Your task to perform on an android device: Play the latest video from the Huffington Post Image 0: 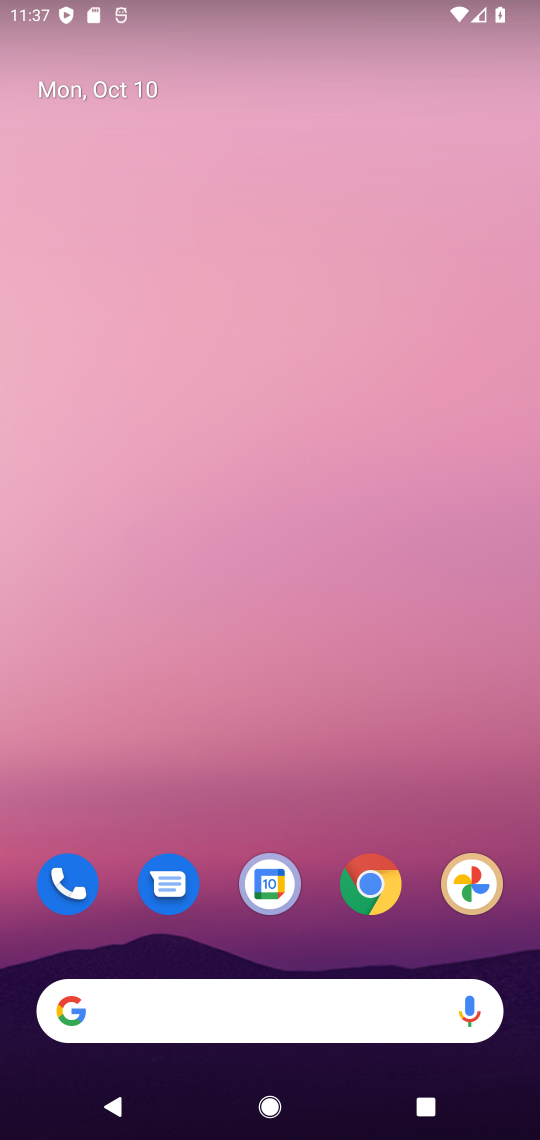
Step 0: click (364, 892)
Your task to perform on an android device: Play the latest video from the Huffington Post Image 1: 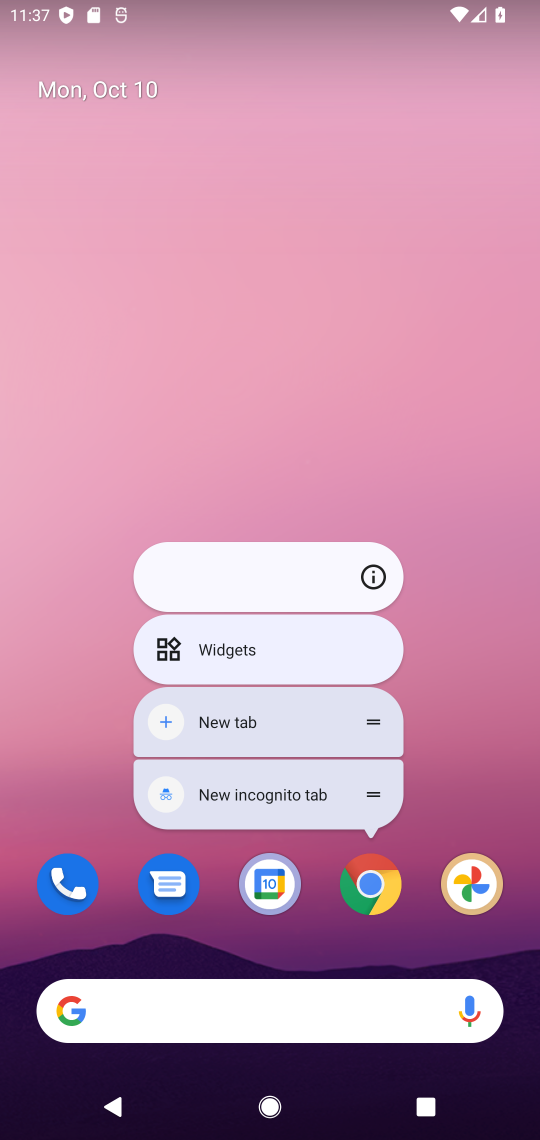
Step 1: click (380, 888)
Your task to perform on an android device: Play the latest video from the Huffington Post Image 2: 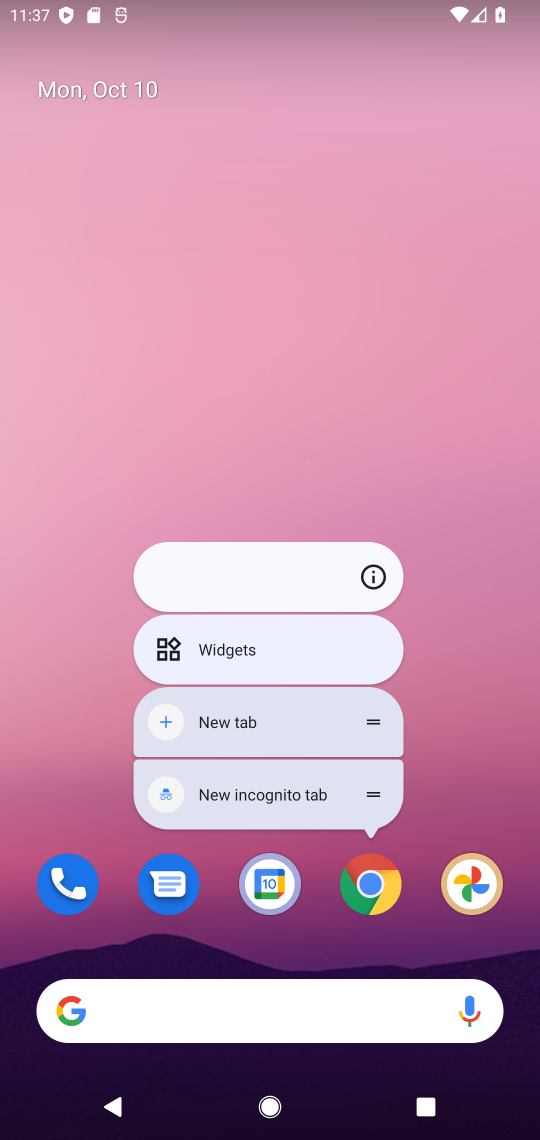
Step 2: click (380, 888)
Your task to perform on an android device: Play the latest video from the Huffington Post Image 3: 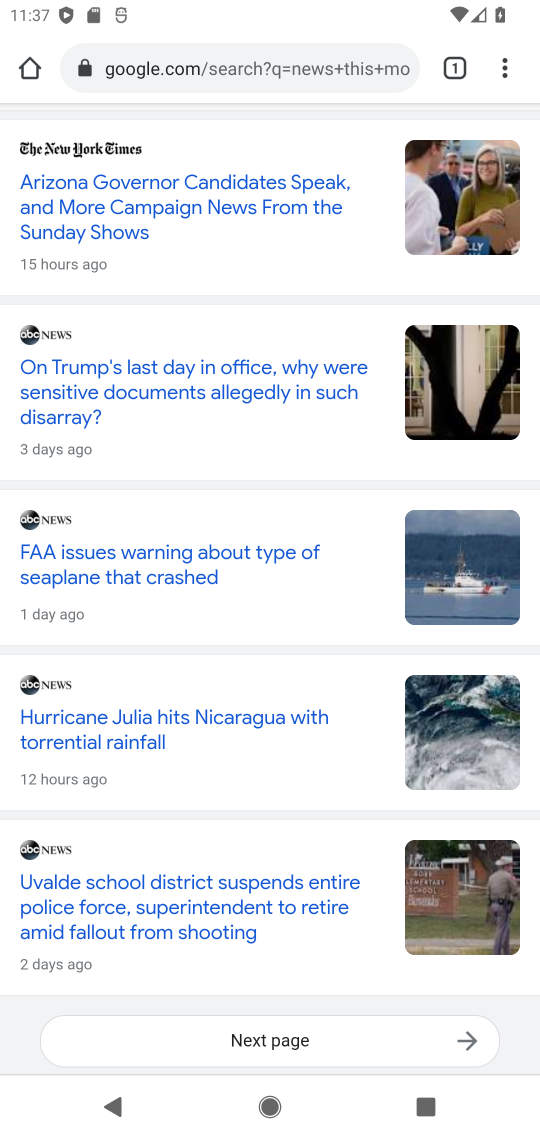
Step 3: click (283, 73)
Your task to perform on an android device: Play the latest video from the Huffington Post Image 4: 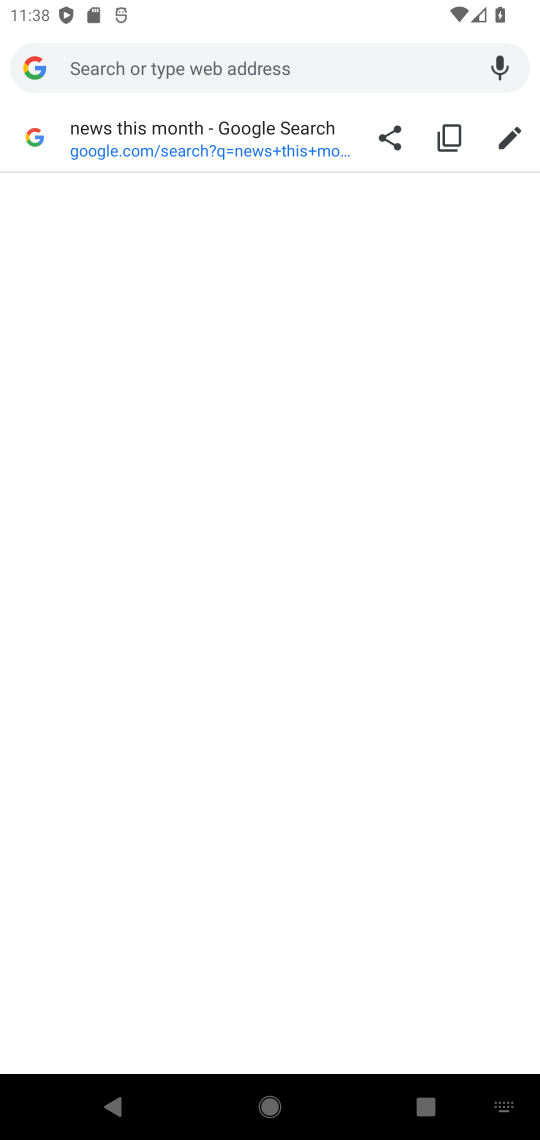
Step 4: type "the Huffington Post"
Your task to perform on an android device: Play the latest video from the Huffington Post Image 5: 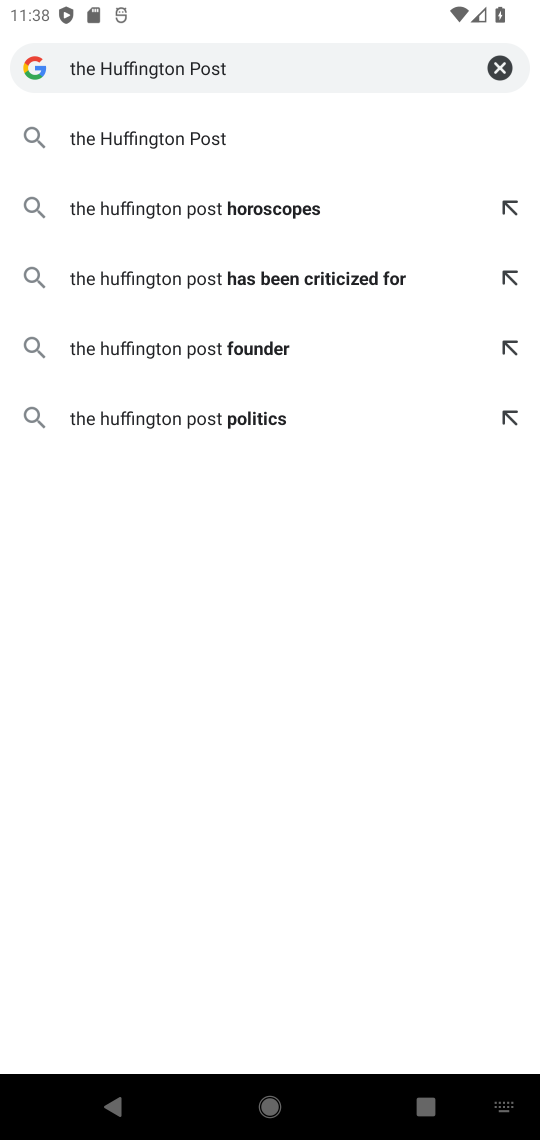
Step 5: press enter
Your task to perform on an android device: Play the latest video from the Huffington Post Image 6: 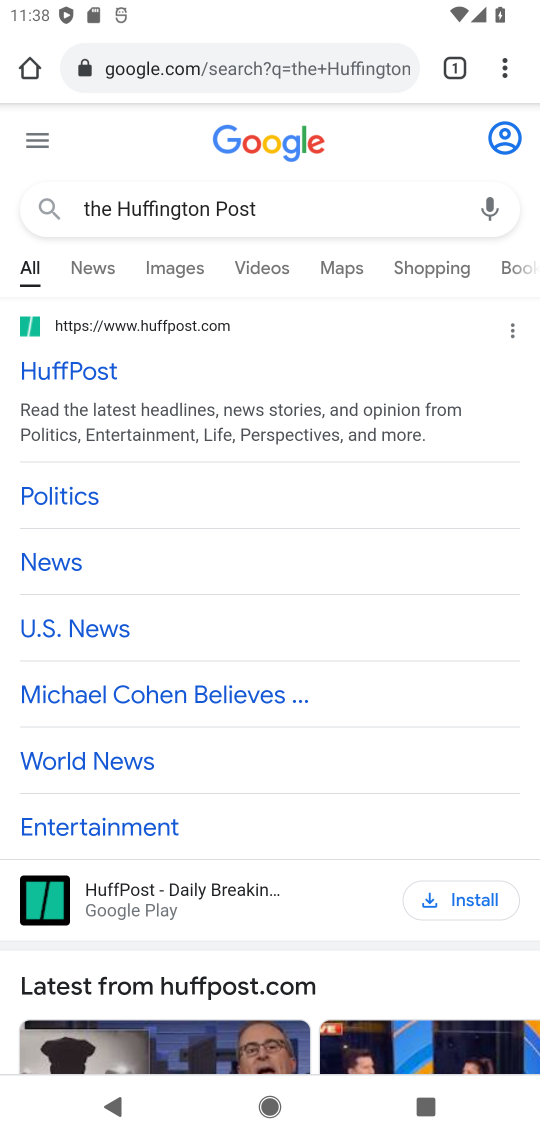
Step 6: drag from (459, 676) to (405, 277)
Your task to perform on an android device: Play the latest video from the Huffington Post Image 7: 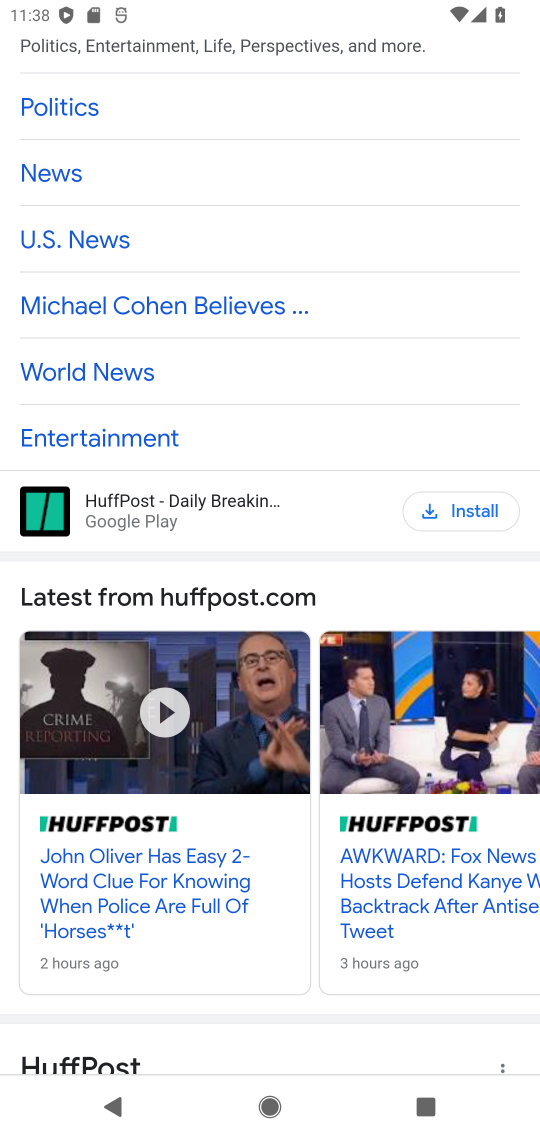
Step 7: drag from (281, 919) to (280, 778)
Your task to perform on an android device: Play the latest video from the Huffington Post Image 8: 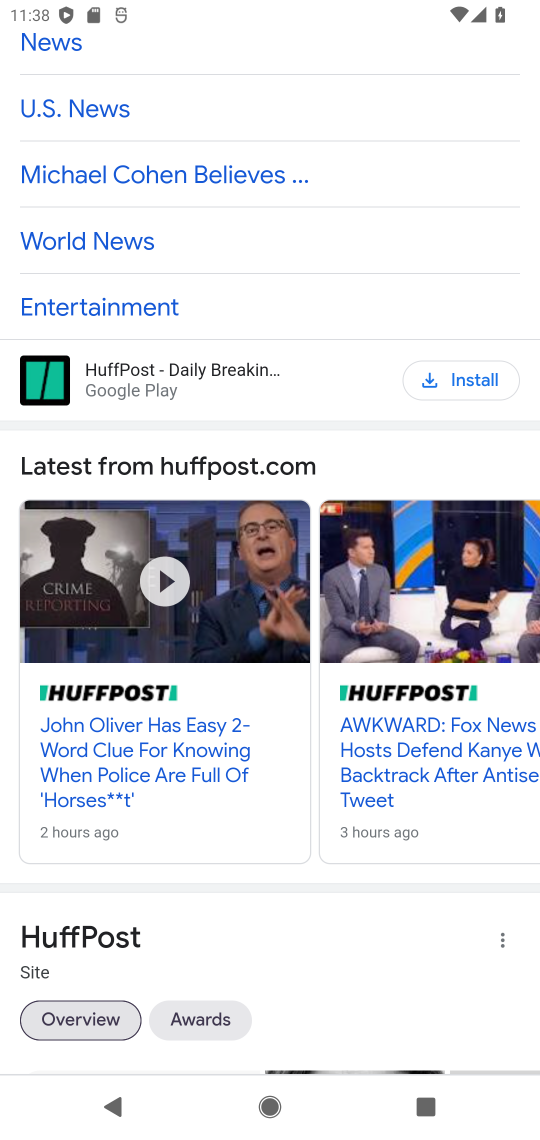
Step 8: click (137, 573)
Your task to perform on an android device: Play the latest video from the Huffington Post Image 9: 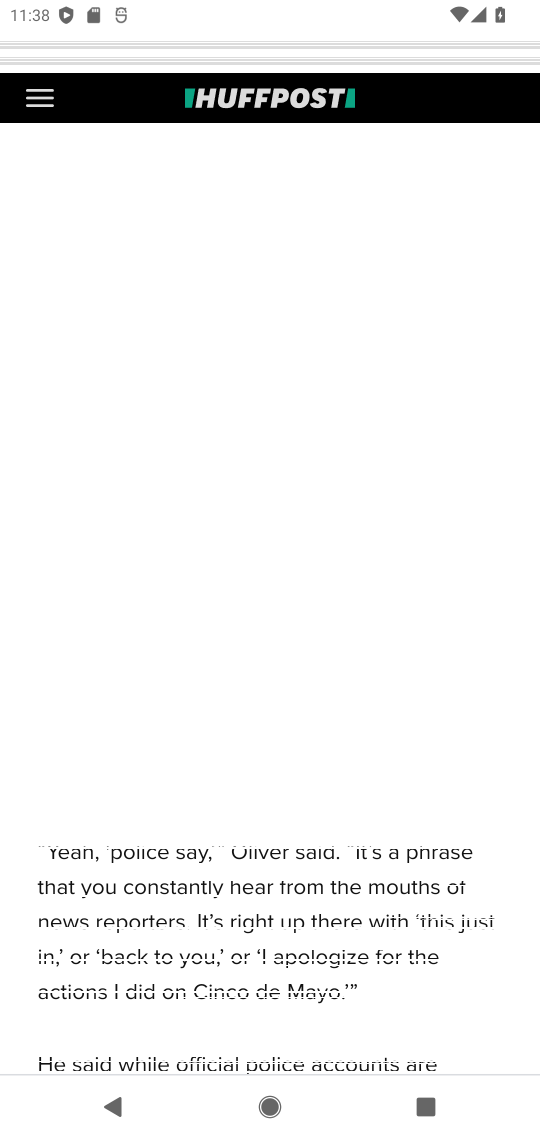
Step 9: drag from (330, 893) to (315, 595)
Your task to perform on an android device: Play the latest video from the Huffington Post Image 10: 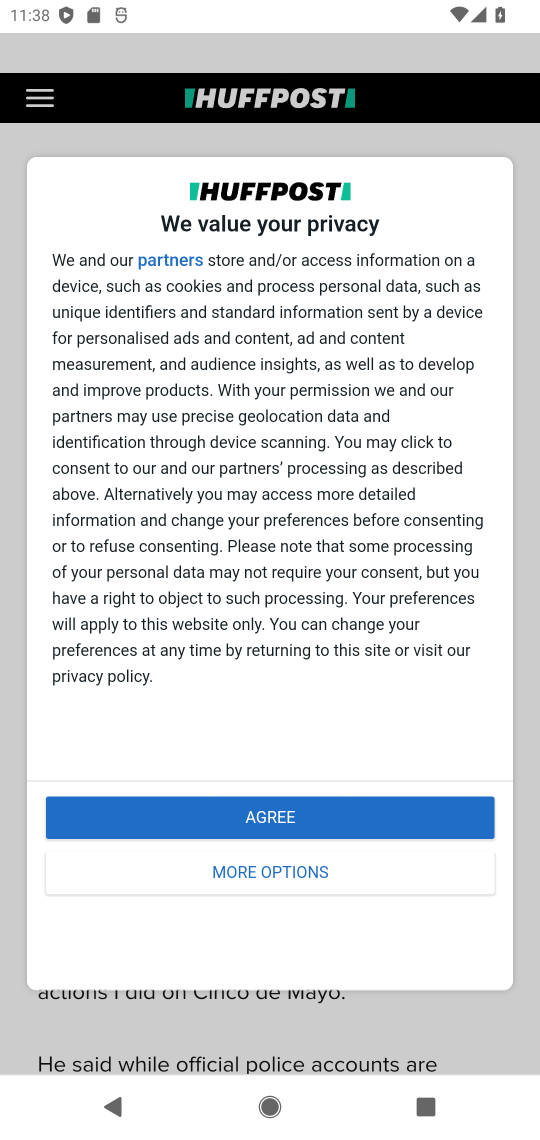
Step 10: click (320, 814)
Your task to perform on an android device: Play the latest video from the Huffington Post Image 11: 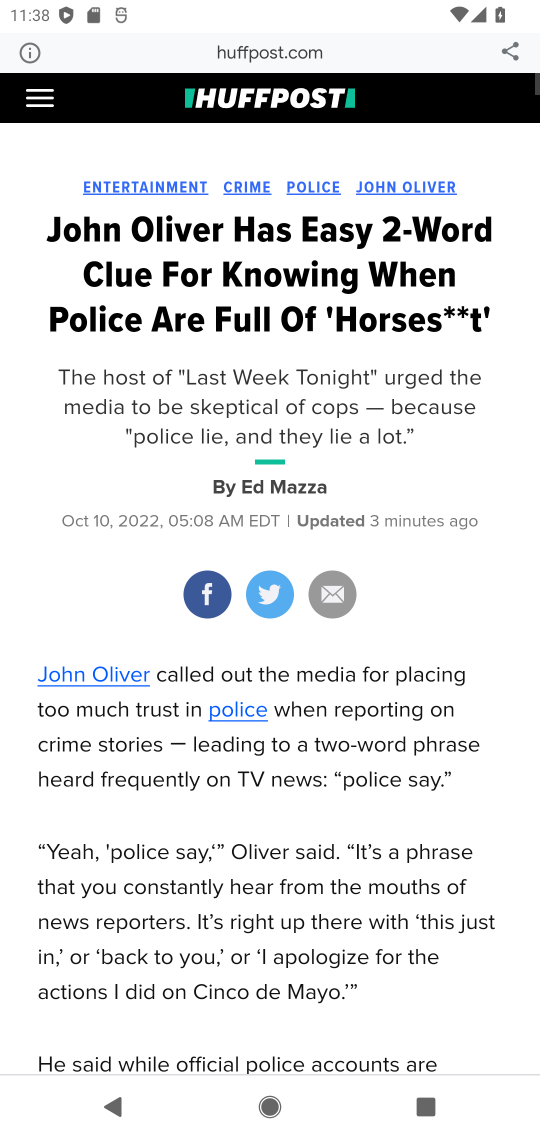
Step 11: drag from (317, 896) to (292, 443)
Your task to perform on an android device: Play the latest video from the Huffington Post Image 12: 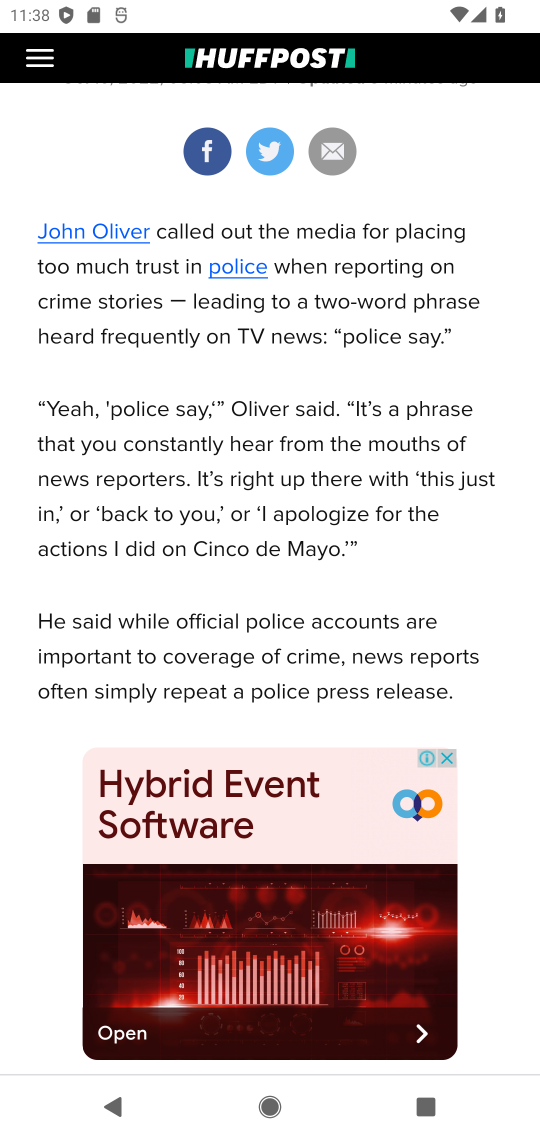
Step 12: drag from (368, 747) to (390, 236)
Your task to perform on an android device: Play the latest video from the Huffington Post Image 13: 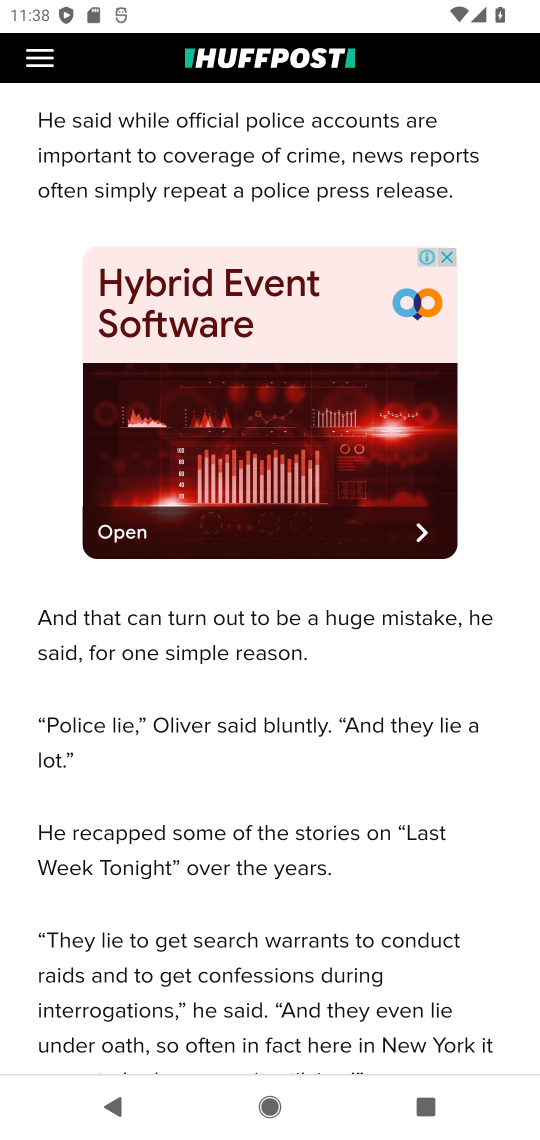
Step 13: drag from (366, 847) to (359, 311)
Your task to perform on an android device: Play the latest video from the Huffington Post Image 14: 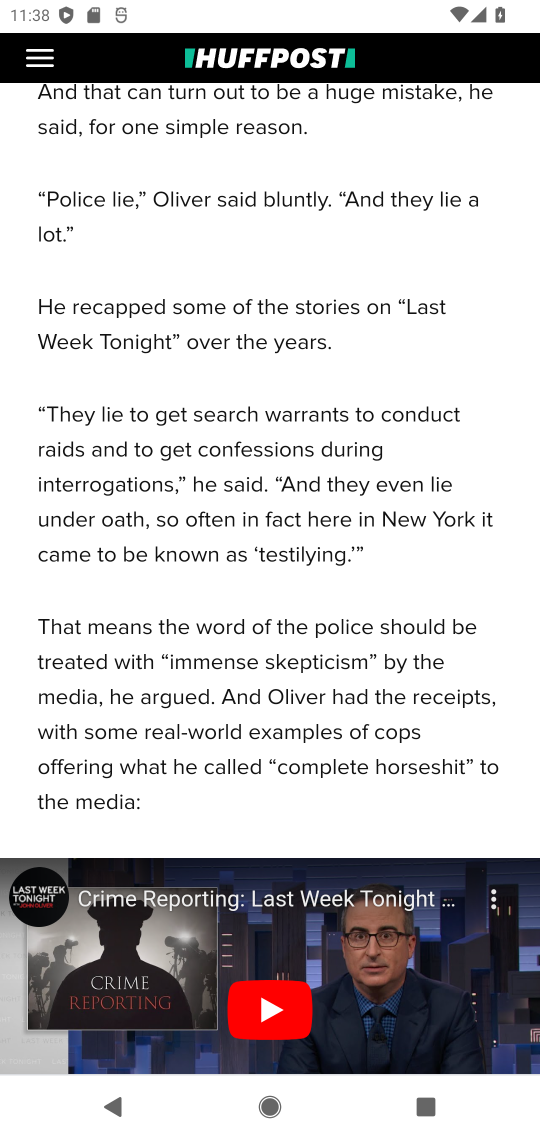
Step 14: drag from (289, 755) to (278, 330)
Your task to perform on an android device: Play the latest video from the Huffington Post Image 15: 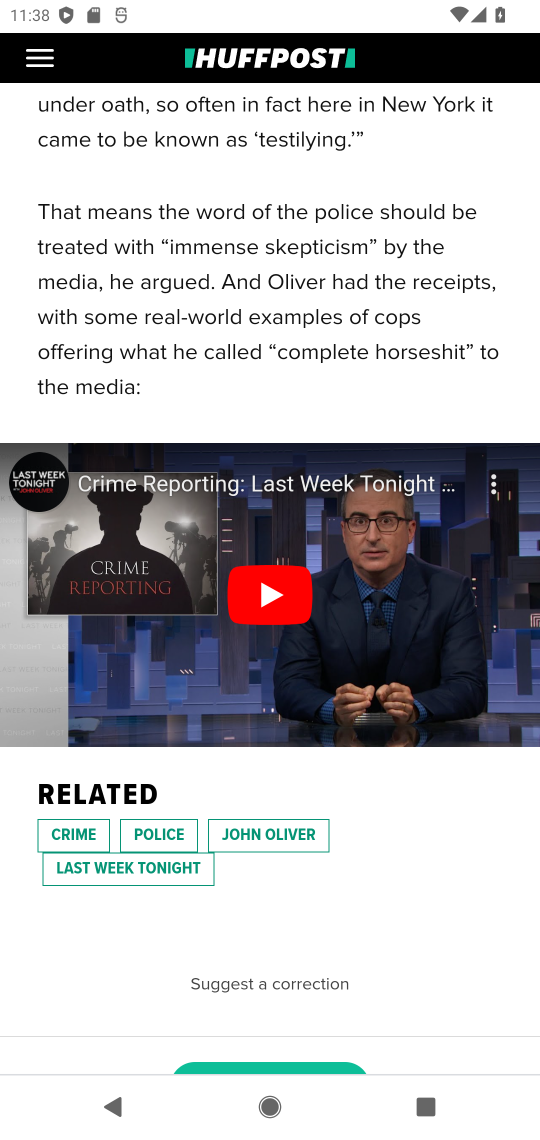
Step 15: click (275, 590)
Your task to perform on an android device: Play the latest video from the Huffington Post Image 16: 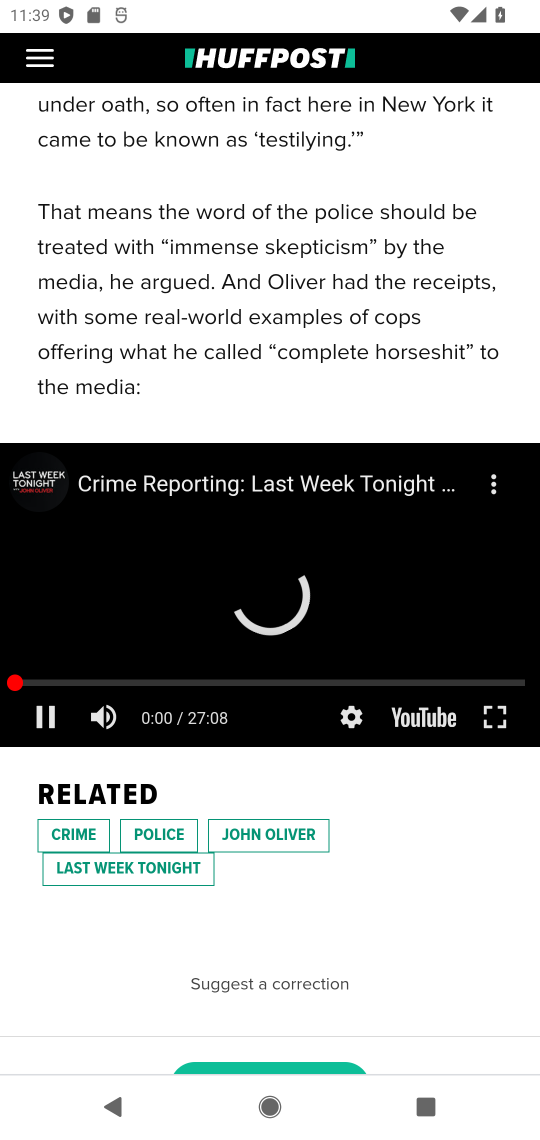
Step 16: click (47, 733)
Your task to perform on an android device: Play the latest video from the Huffington Post Image 17: 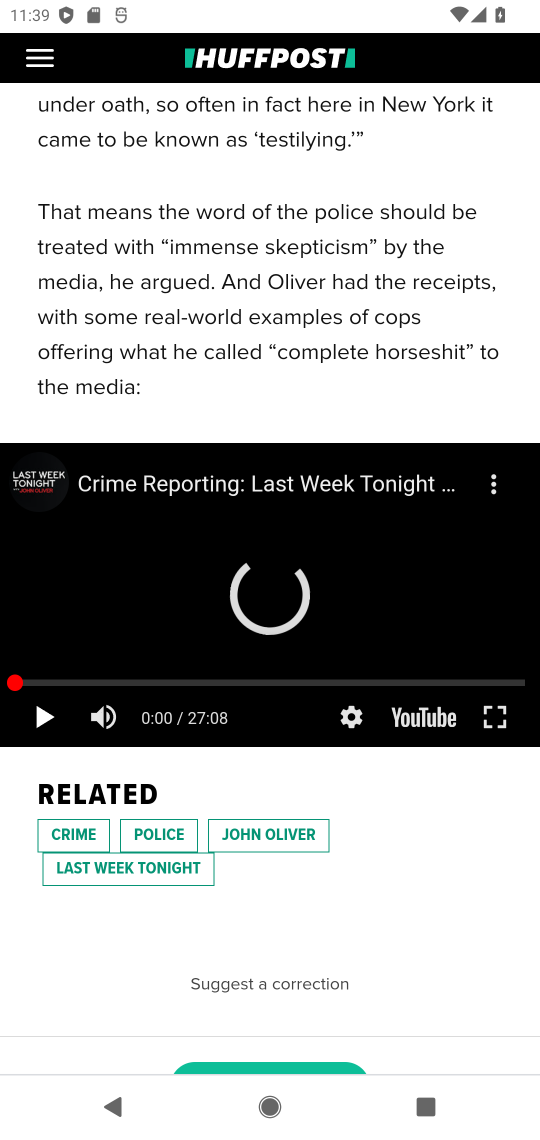
Step 17: click (47, 722)
Your task to perform on an android device: Play the latest video from the Huffington Post Image 18: 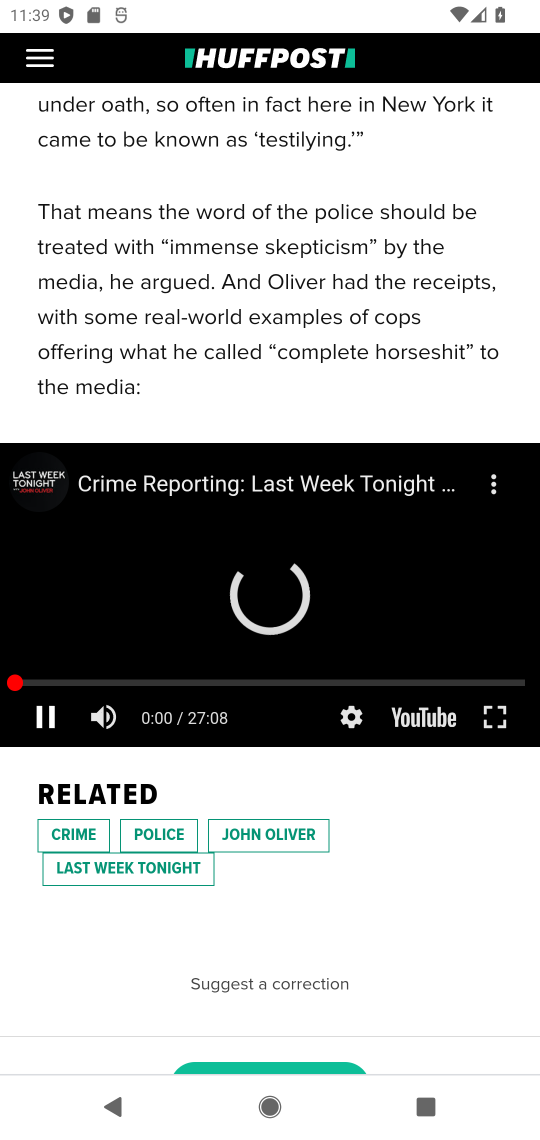
Step 18: task complete